Your task to perform on an android device: Open Google Chrome and click the shortcut for Amazon.com Image 0: 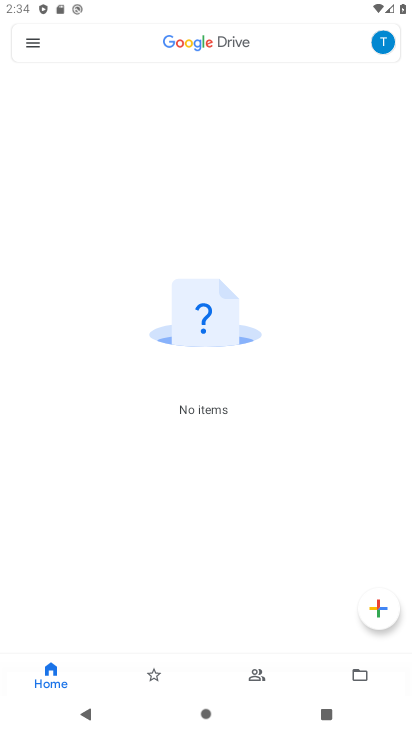
Step 0: press home button
Your task to perform on an android device: Open Google Chrome and click the shortcut for Amazon.com Image 1: 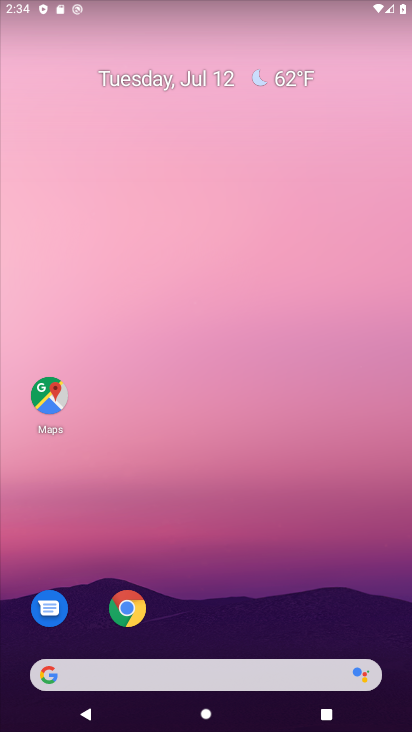
Step 1: click (137, 606)
Your task to perform on an android device: Open Google Chrome and click the shortcut for Amazon.com Image 2: 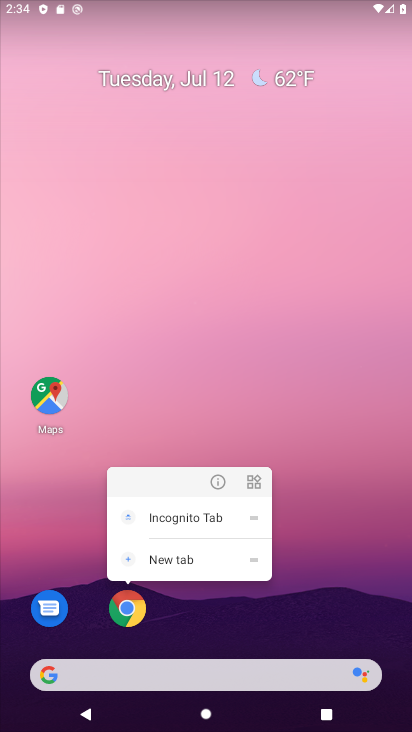
Step 2: click (128, 608)
Your task to perform on an android device: Open Google Chrome and click the shortcut for Amazon.com Image 3: 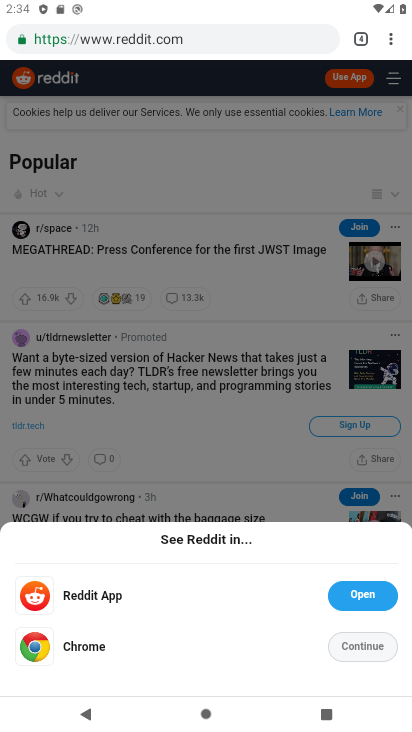
Step 3: drag from (390, 41) to (339, 79)
Your task to perform on an android device: Open Google Chrome and click the shortcut for Amazon.com Image 4: 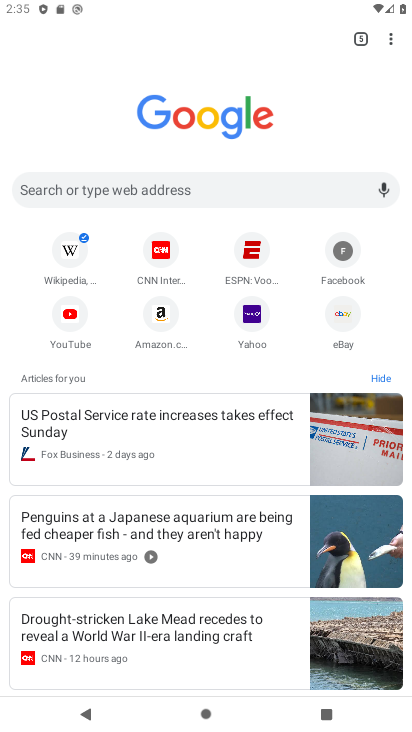
Step 4: click (155, 312)
Your task to perform on an android device: Open Google Chrome and click the shortcut for Amazon.com Image 5: 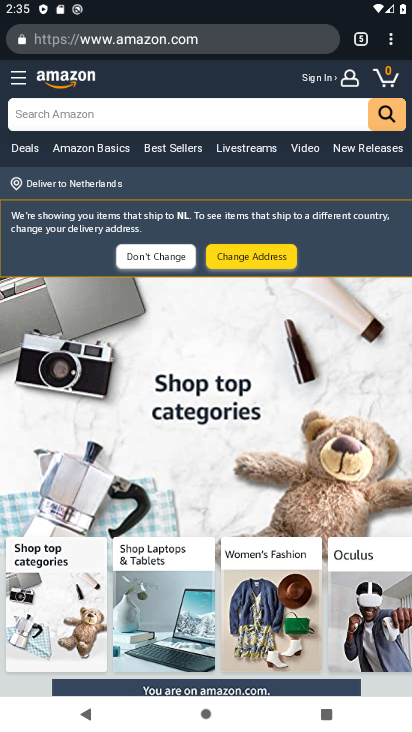
Step 5: task complete